Your task to perform on an android device: uninstall "Gboard" Image 0: 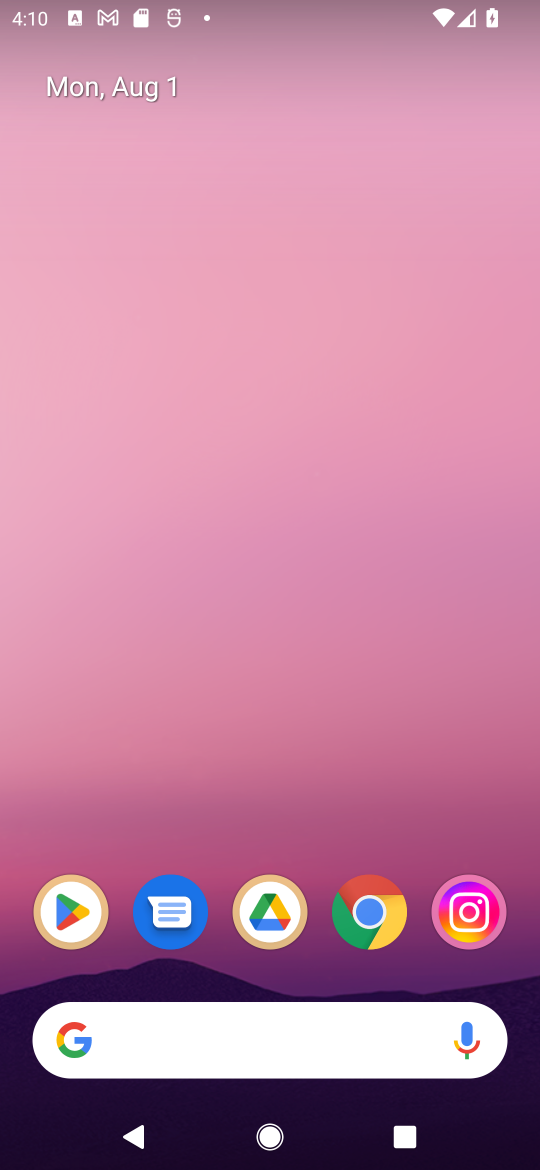
Step 0: click (71, 923)
Your task to perform on an android device: uninstall "Gboard" Image 1: 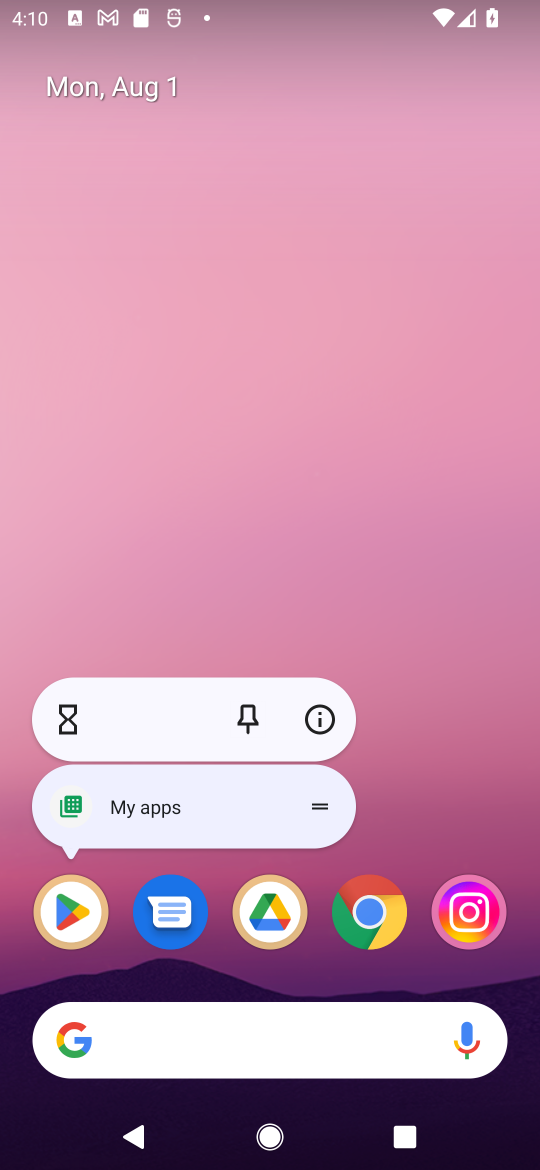
Step 1: click (76, 919)
Your task to perform on an android device: uninstall "Gboard" Image 2: 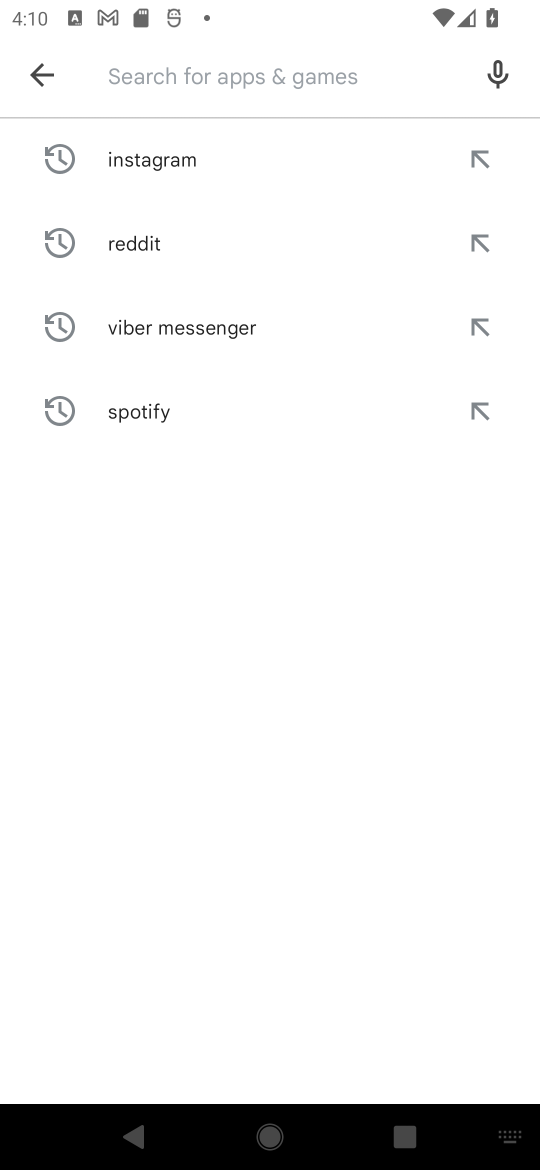
Step 2: click (302, 88)
Your task to perform on an android device: uninstall "Gboard" Image 3: 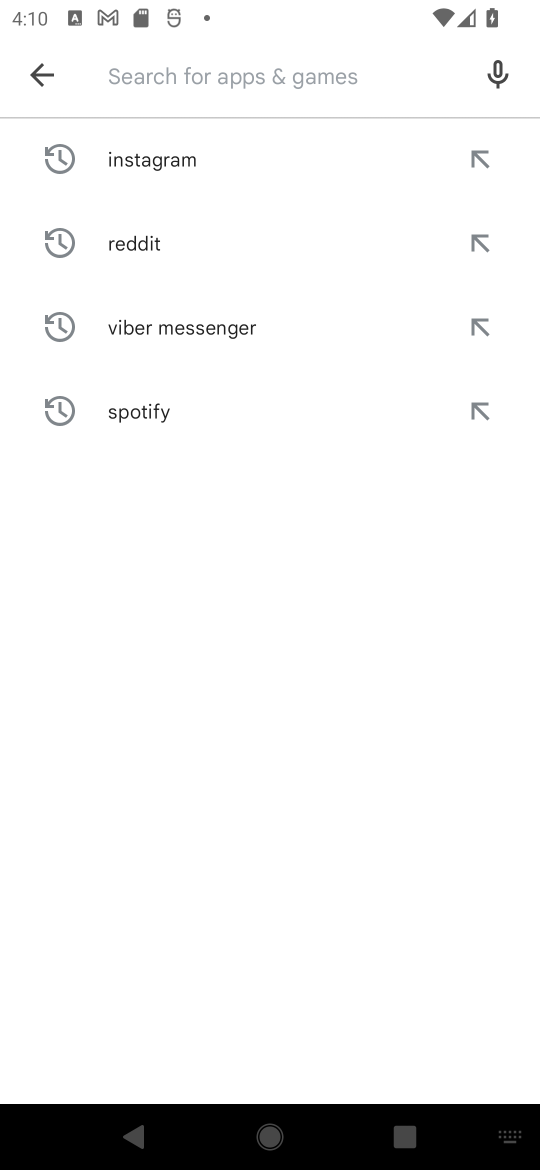
Step 3: type "Gboard"
Your task to perform on an android device: uninstall "Gboard" Image 4: 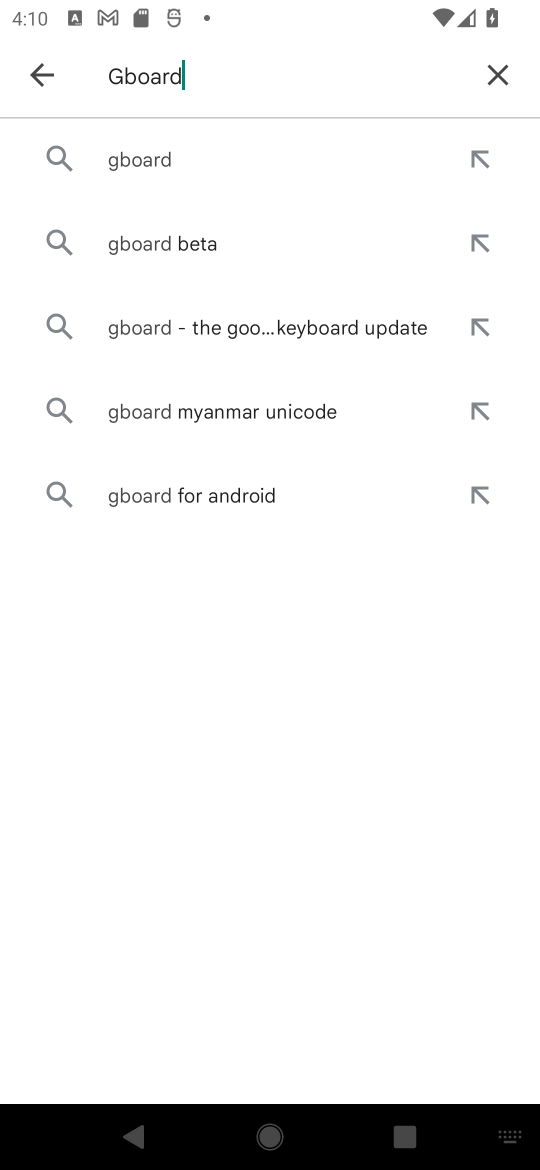
Step 4: click (135, 171)
Your task to perform on an android device: uninstall "Gboard" Image 5: 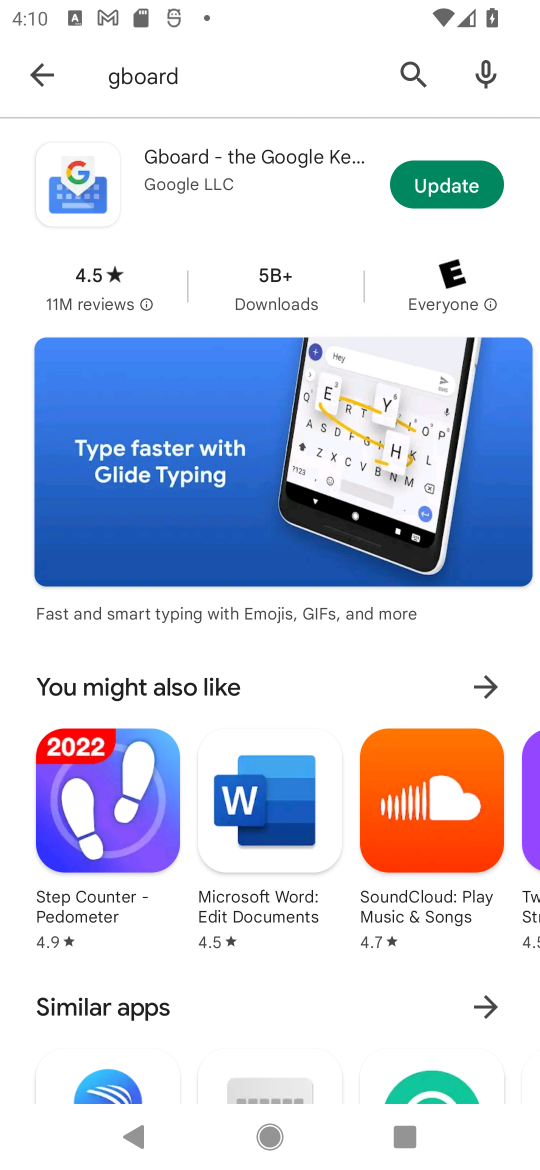
Step 5: click (135, 171)
Your task to perform on an android device: uninstall "Gboard" Image 6: 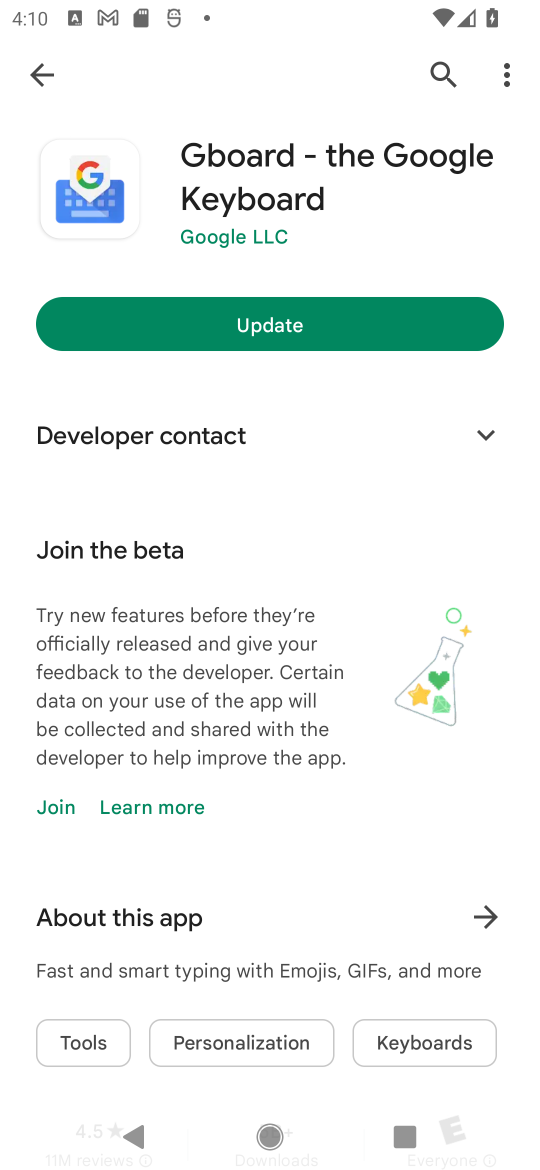
Step 6: click (236, 162)
Your task to perform on an android device: uninstall "Gboard" Image 7: 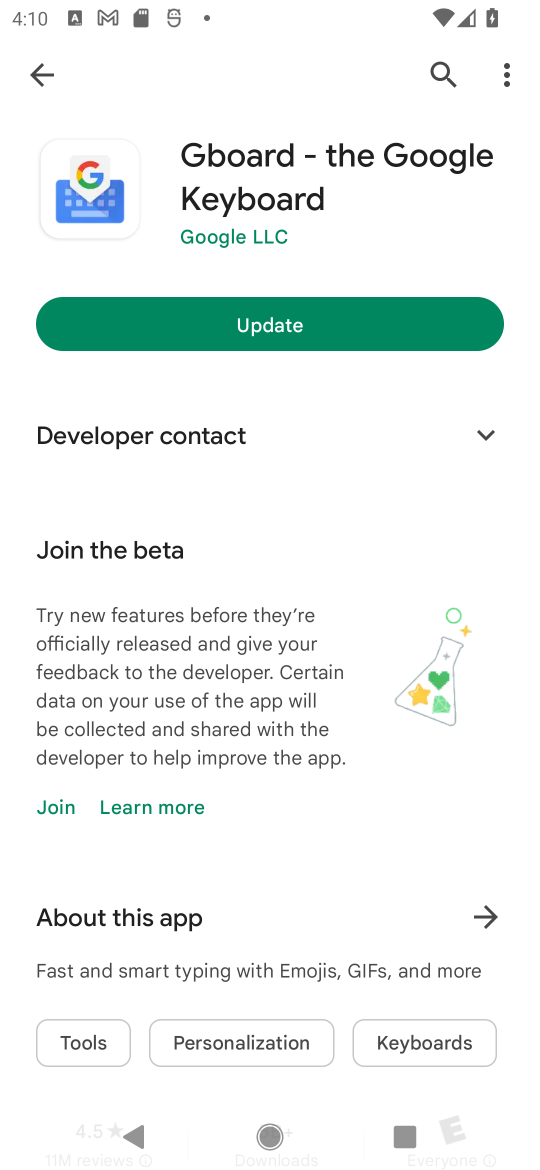
Step 7: task complete